Your task to perform on an android device: What is the news today? Image 0: 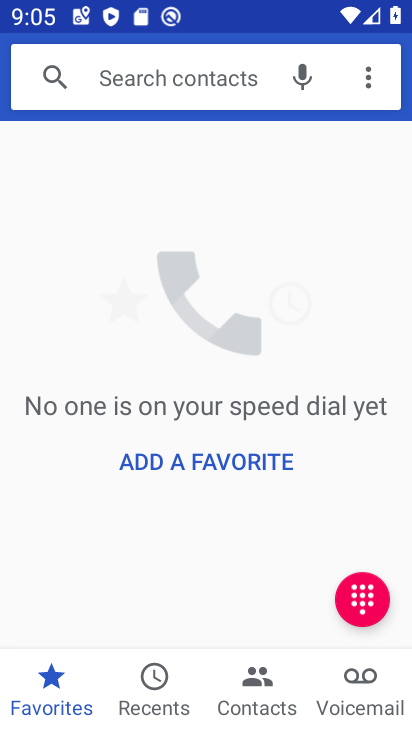
Step 0: press home button
Your task to perform on an android device: What is the news today? Image 1: 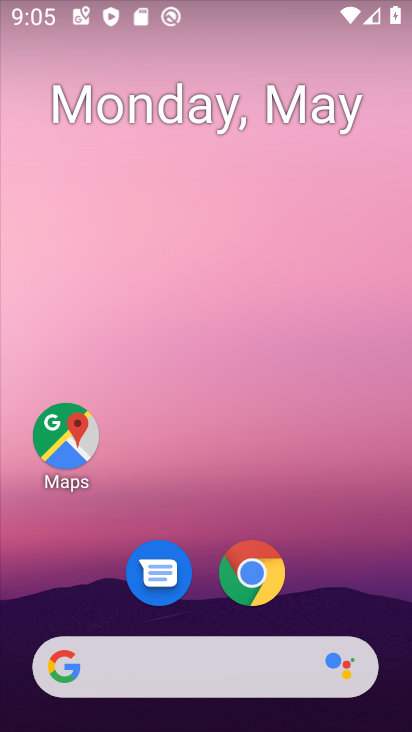
Step 1: drag from (354, 562) to (301, 153)
Your task to perform on an android device: What is the news today? Image 2: 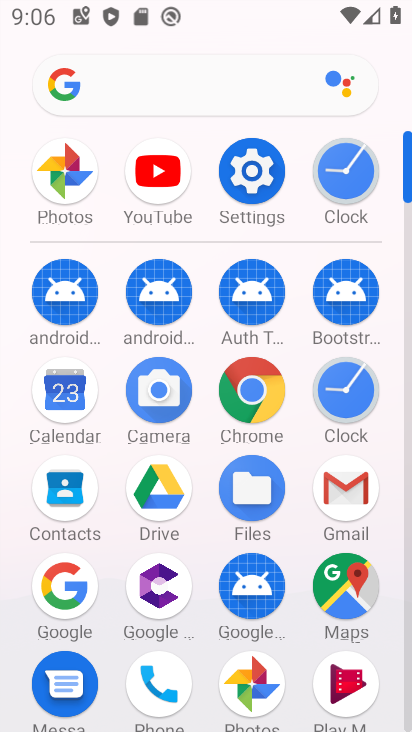
Step 2: click (211, 81)
Your task to perform on an android device: What is the news today? Image 3: 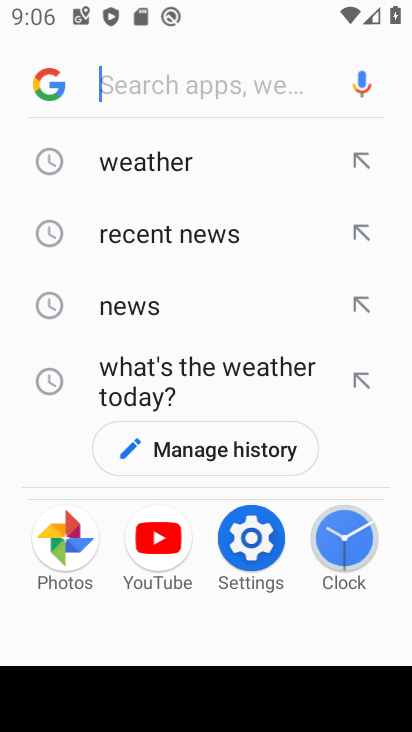
Step 3: click (207, 251)
Your task to perform on an android device: What is the news today? Image 4: 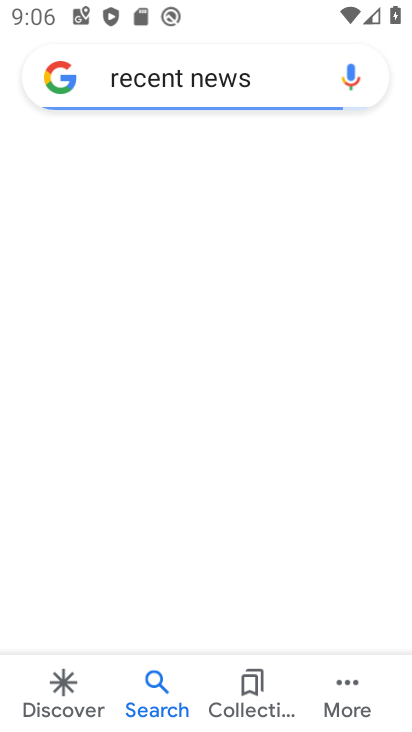
Step 4: task complete